Your task to perform on an android device: Open settings Image 0: 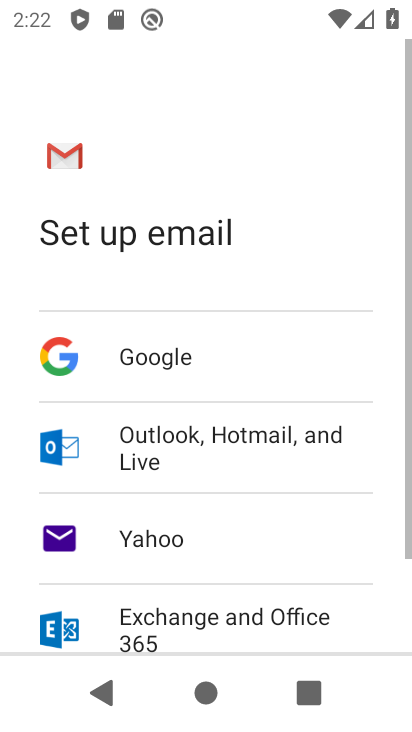
Step 0: press home button
Your task to perform on an android device: Open settings Image 1: 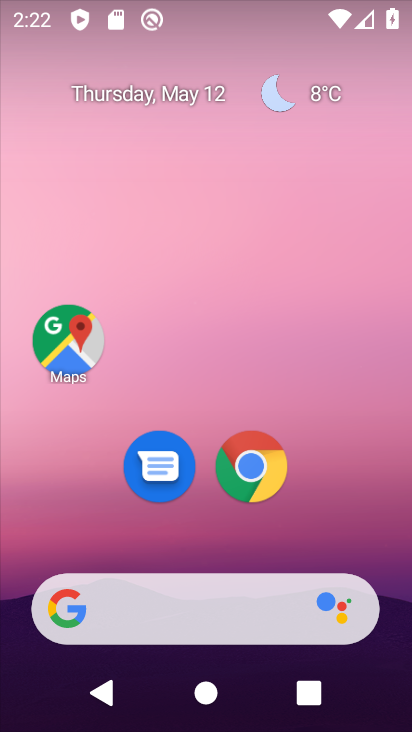
Step 1: drag from (354, 529) to (331, 142)
Your task to perform on an android device: Open settings Image 2: 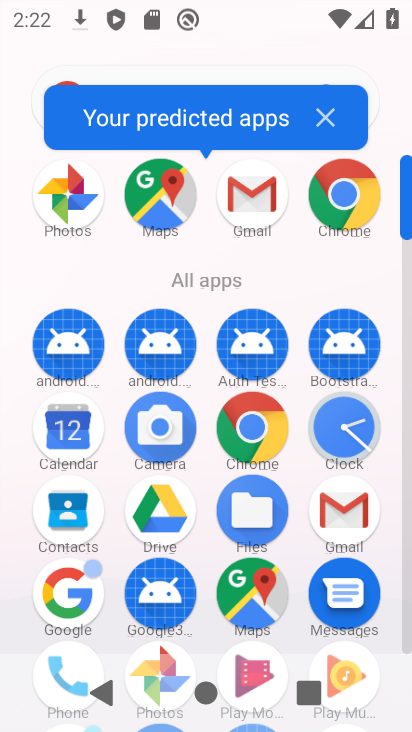
Step 2: drag from (205, 299) to (220, 70)
Your task to perform on an android device: Open settings Image 3: 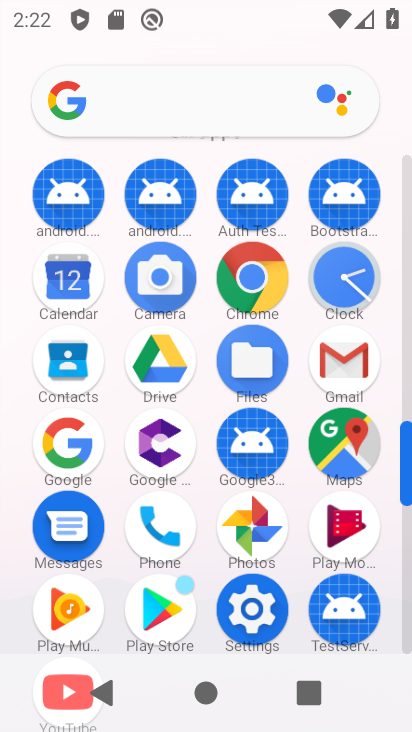
Step 3: click (248, 586)
Your task to perform on an android device: Open settings Image 4: 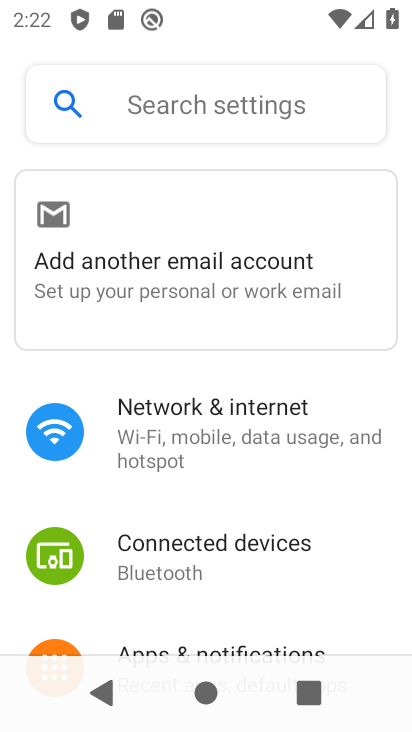
Step 4: task complete